Your task to perform on an android device: What's the weather going to be this weekend? Image 0: 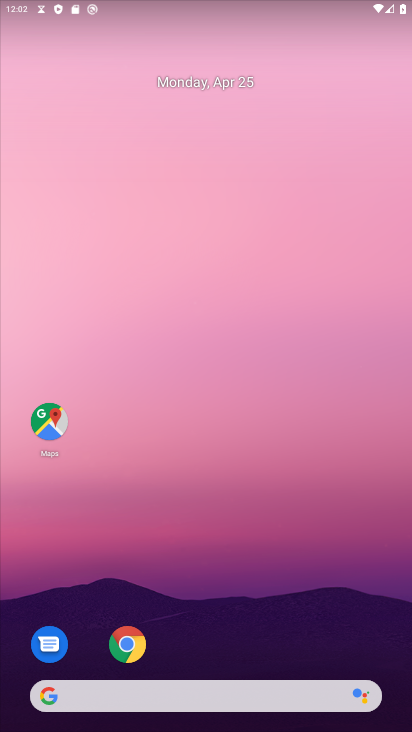
Step 0: drag from (51, 241) to (379, 184)
Your task to perform on an android device: What's the weather going to be this weekend? Image 1: 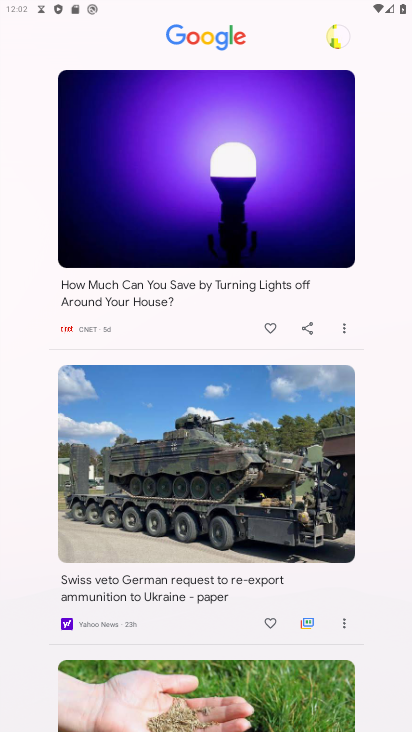
Step 1: press back button
Your task to perform on an android device: What's the weather going to be this weekend? Image 2: 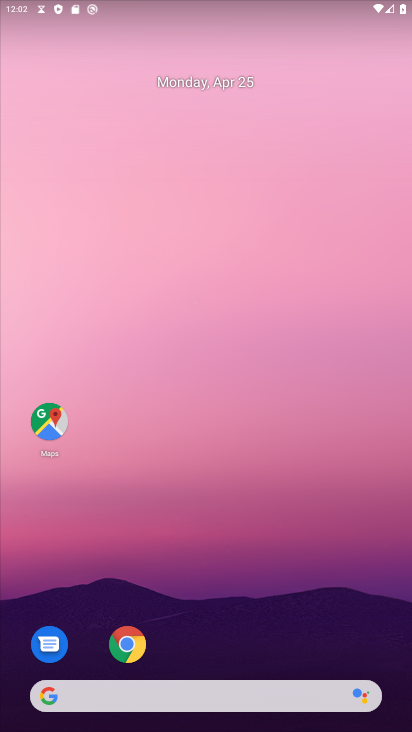
Step 2: click (163, 701)
Your task to perform on an android device: What's the weather going to be this weekend? Image 3: 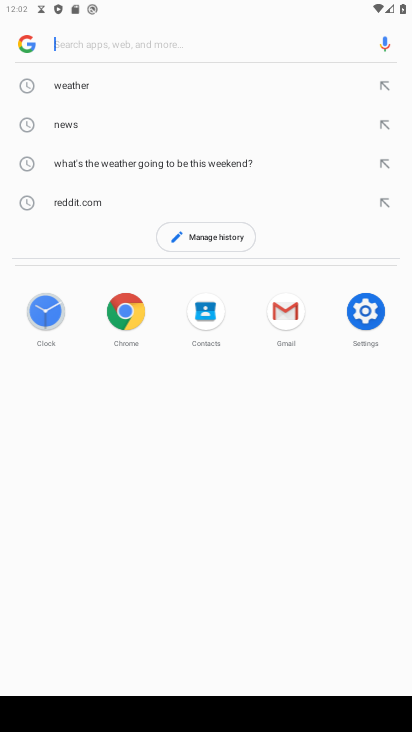
Step 3: click (66, 89)
Your task to perform on an android device: What's the weather going to be this weekend? Image 4: 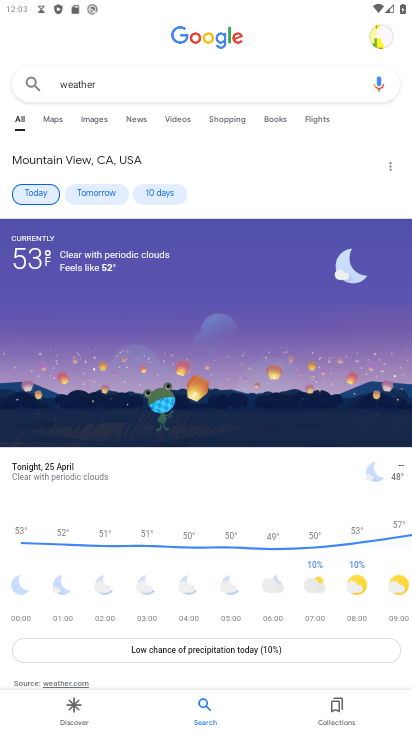
Step 4: click (144, 192)
Your task to perform on an android device: What's the weather going to be this weekend? Image 5: 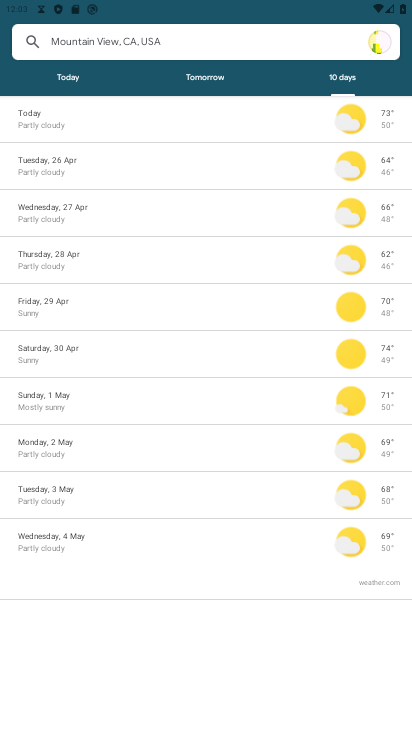
Step 5: task complete